Your task to perform on an android device: refresh tabs in the chrome app Image 0: 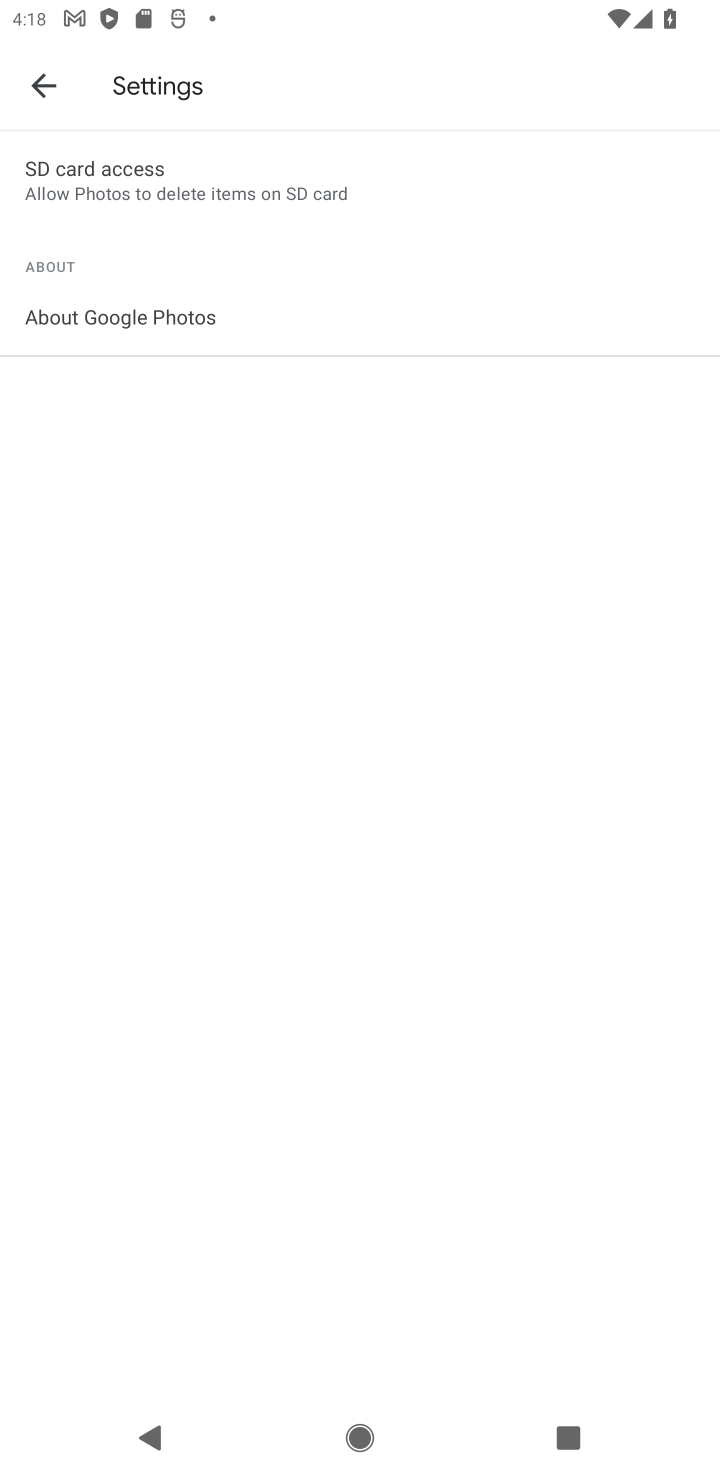
Step 0: press home button
Your task to perform on an android device: refresh tabs in the chrome app Image 1: 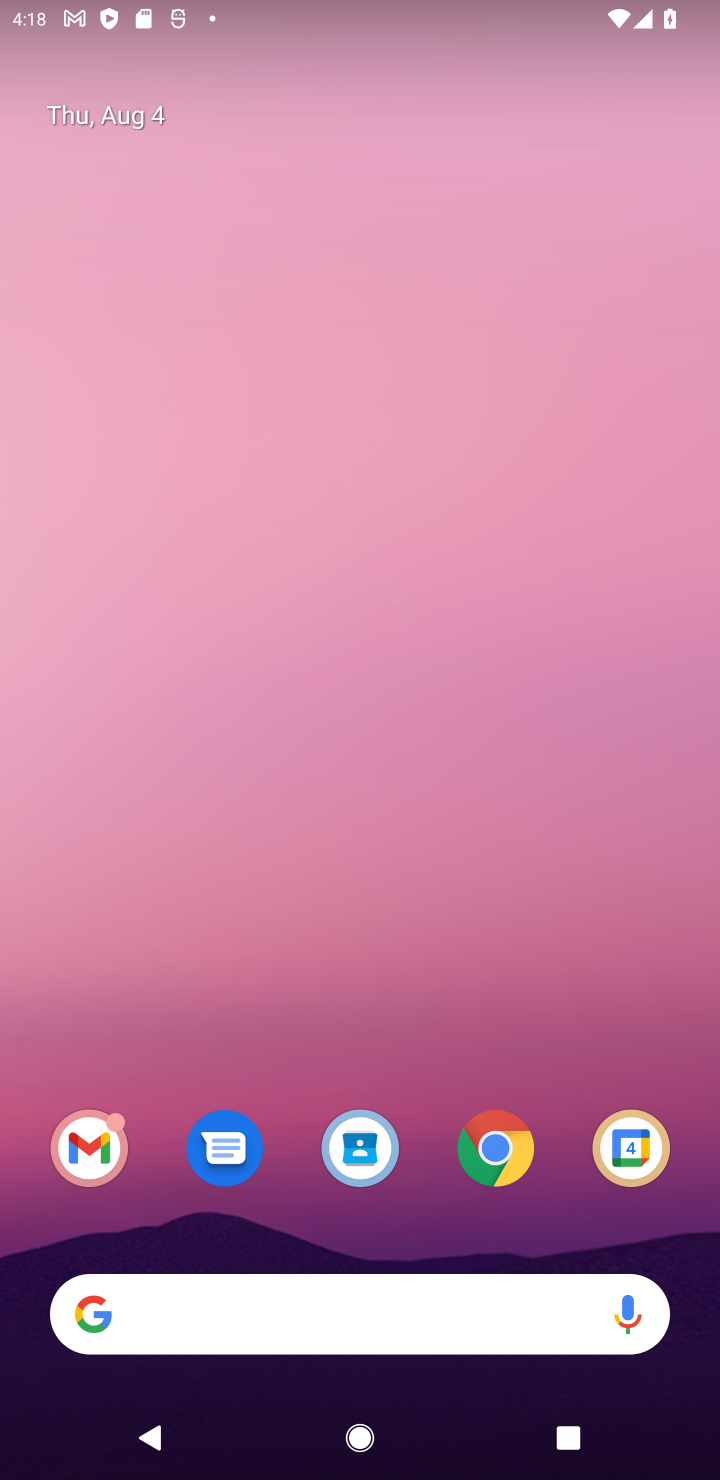
Step 1: click (497, 1157)
Your task to perform on an android device: refresh tabs in the chrome app Image 2: 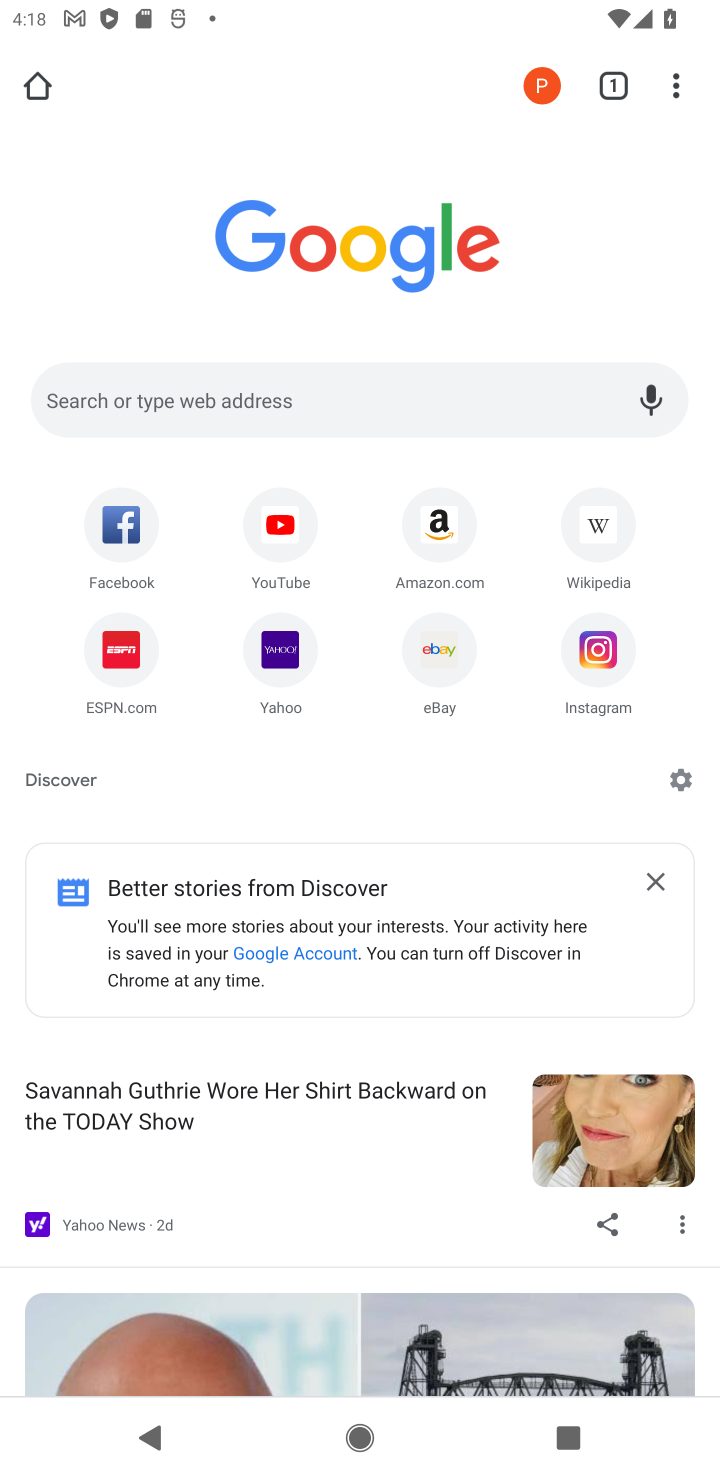
Step 2: click (673, 96)
Your task to perform on an android device: refresh tabs in the chrome app Image 3: 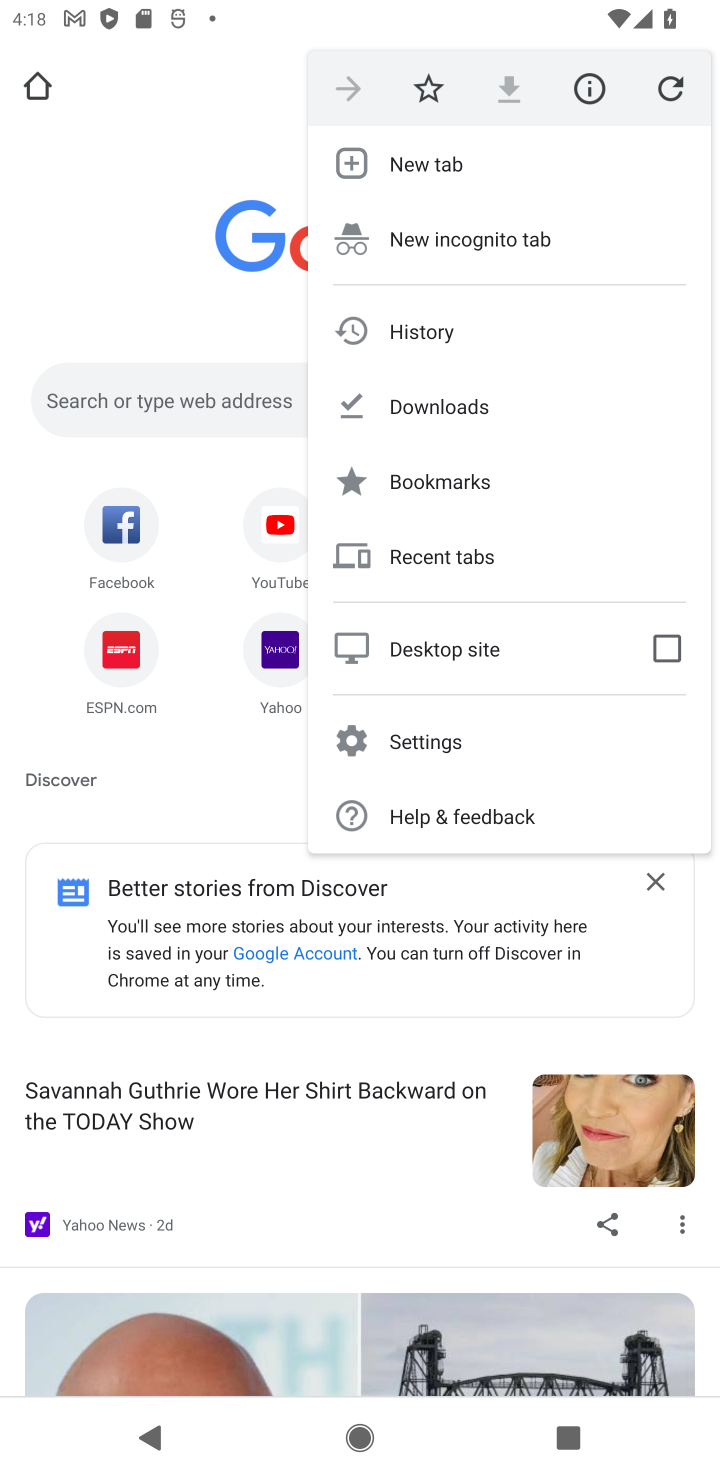
Step 3: click (670, 85)
Your task to perform on an android device: refresh tabs in the chrome app Image 4: 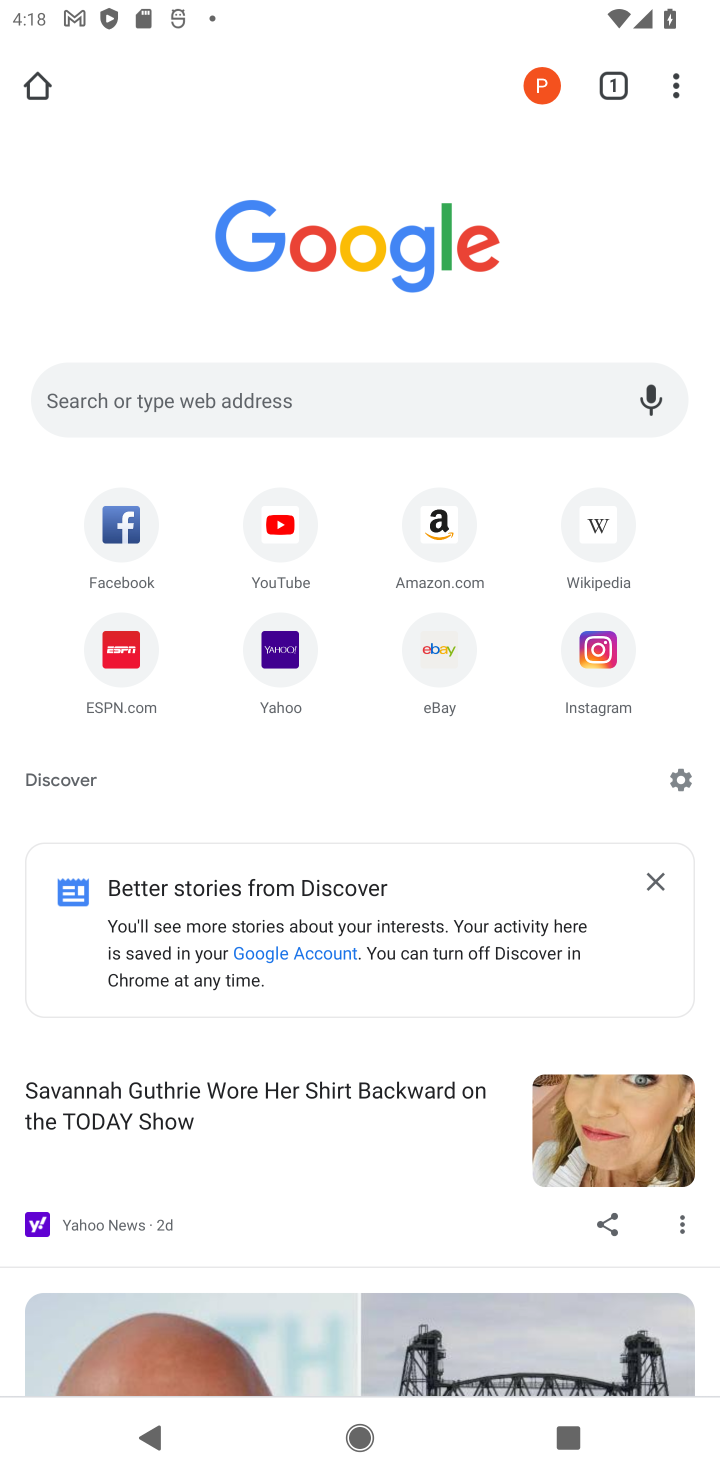
Step 4: task complete